Your task to perform on an android device: Open Youtube and go to "Your channel" Image 0: 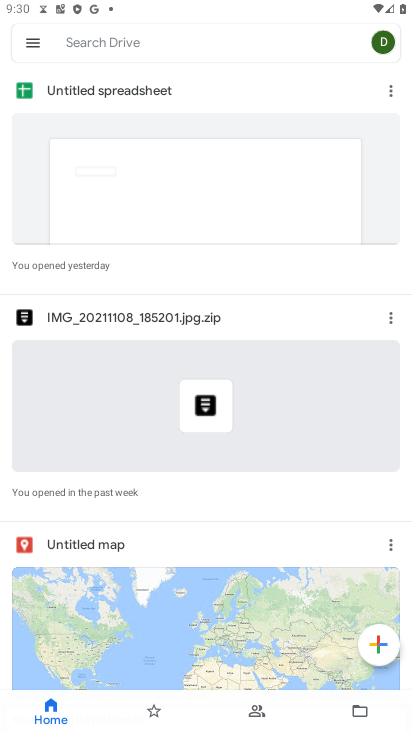
Step 0: press home button
Your task to perform on an android device: Open Youtube and go to "Your channel" Image 1: 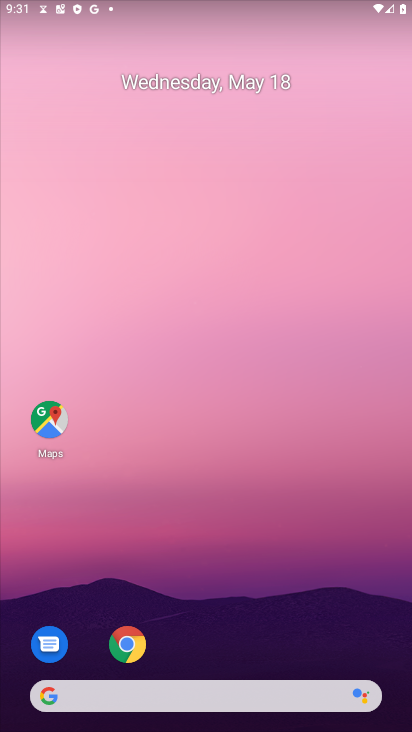
Step 1: drag from (219, 531) to (258, 1)
Your task to perform on an android device: Open Youtube and go to "Your channel" Image 2: 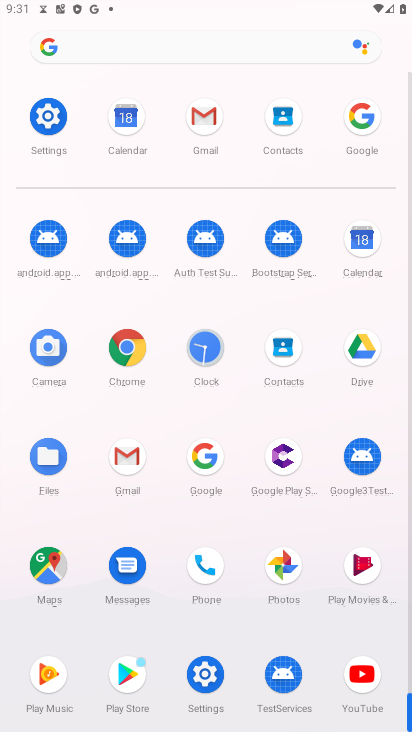
Step 2: drag from (223, 511) to (254, 274)
Your task to perform on an android device: Open Youtube and go to "Your channel" Image 3: 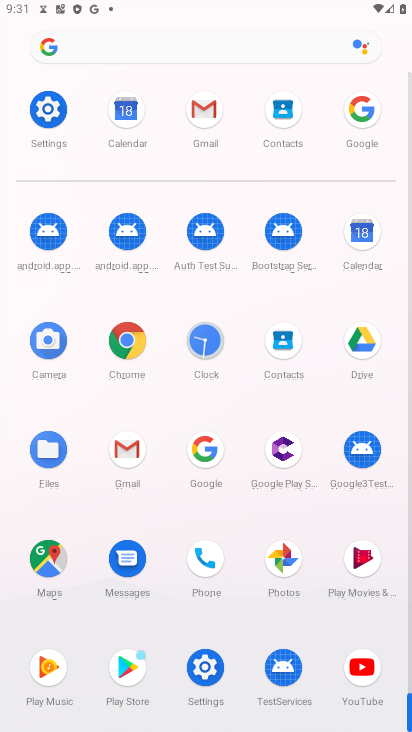
Step 3: click (362, 671)
Your task to perform on an android device: Open Youtube and go to "Your channel" Image 4: 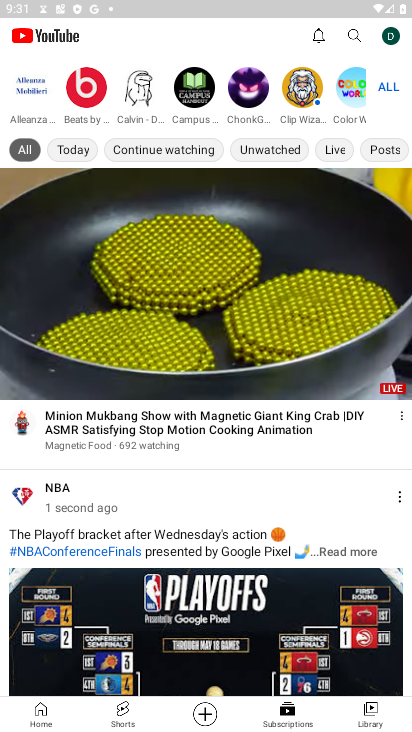
Step 4: click (390, 36)
Your task to perform on an android device: Open Youtube and go to "Your channel" Image 5: 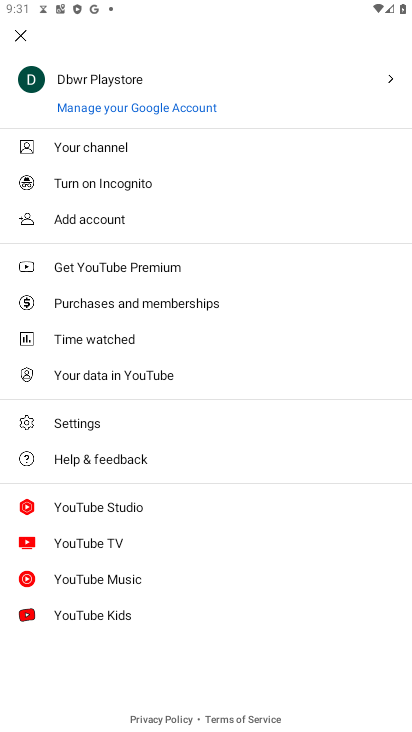
Step 5: click (98, 146)
Your task to perform on an android device: Open Youtube and go to "Your channel" Image 6: 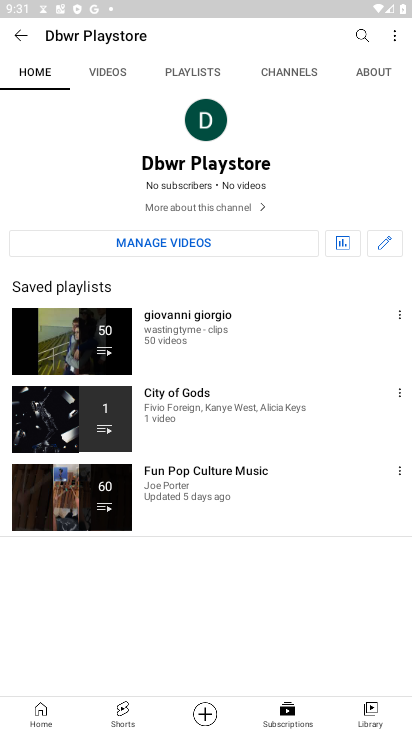
Step 6: task complete